Your task to perform on an android device: check data usage Image 0: 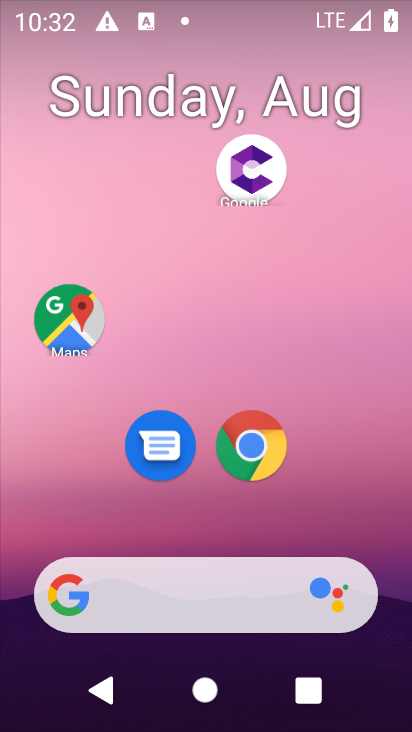
Step 0: drag from (210, 521) to (201, 47)
Your task to perform on an android device: check data usage Image 1: 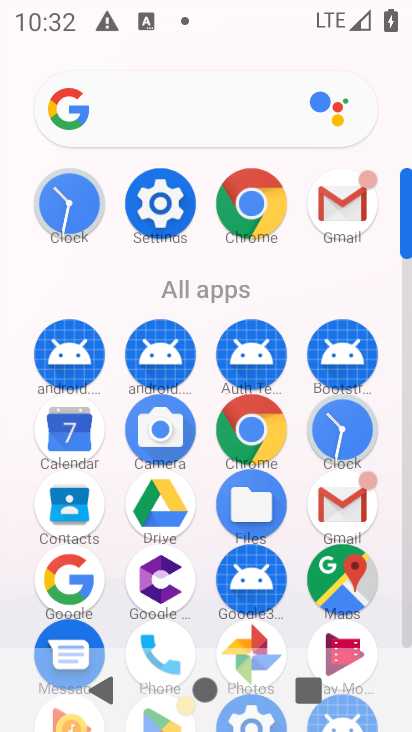
Step 1: click (157, 196)
Your task to perform on an android device: check data usage Image 2: 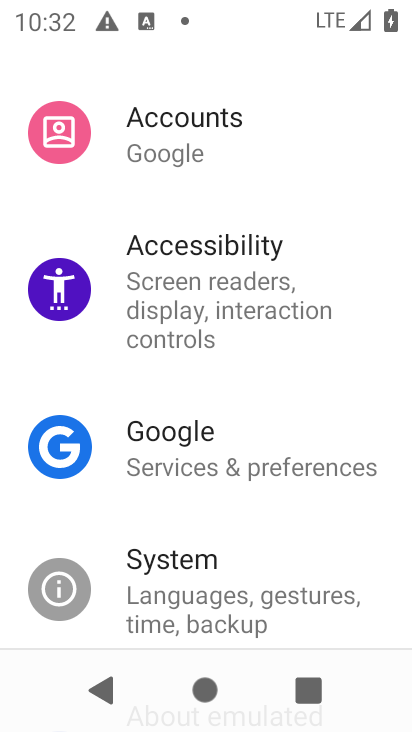
Step 2: drag from (188, 133) to (186, 700)
Your task to perform on an android device: check data usage Image 3: 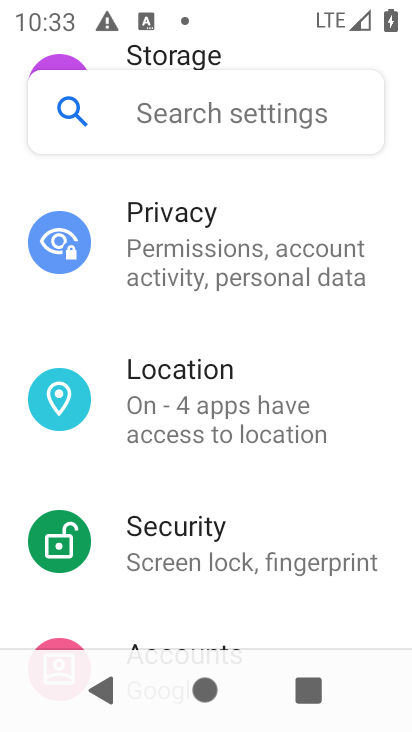
Step 3: drag from (185, 272) to (213, 663)
Your task to perform on an android device: check data usage Image 4: 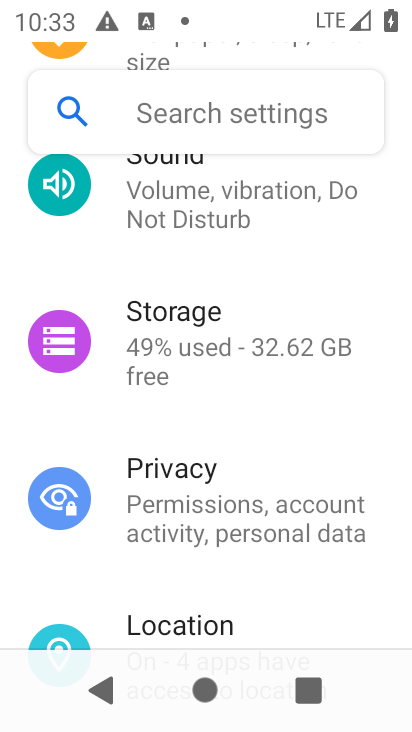
Step 4: drag from (186, 184) to (169, 624)
Your task to perform on an android device: check data usage Image 5: 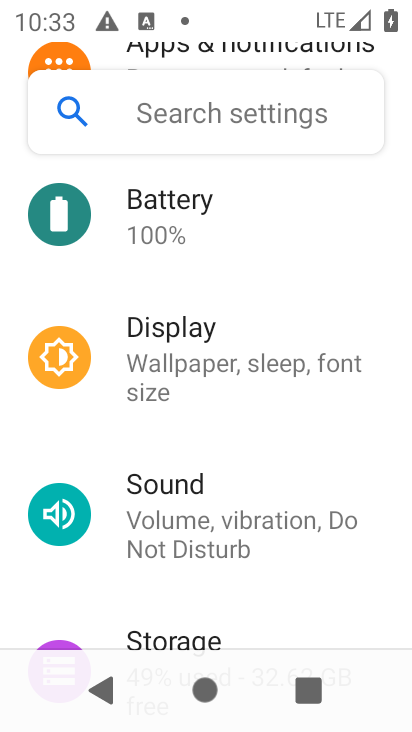
Step 5: drag from (184, 191) to (193, 653)
Your task to perform on an android device: check data usage Image 6: 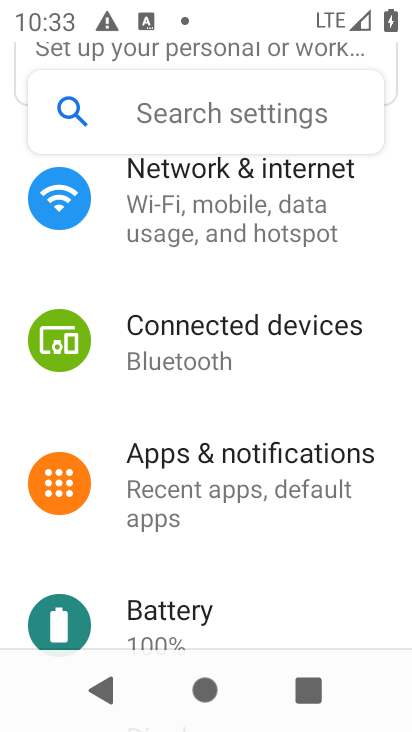
Step 6: click (182, 223)
Your task to perform on an android device: check data usage Image 7: 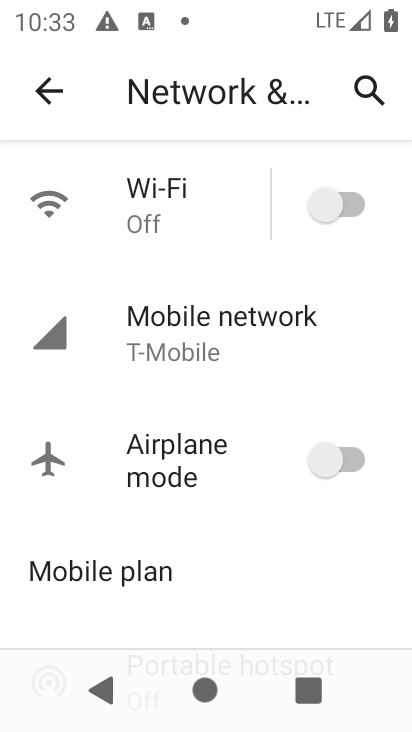
Step 7: click (213, 341)
Your task to perform on an android device: check data usage Image 8: 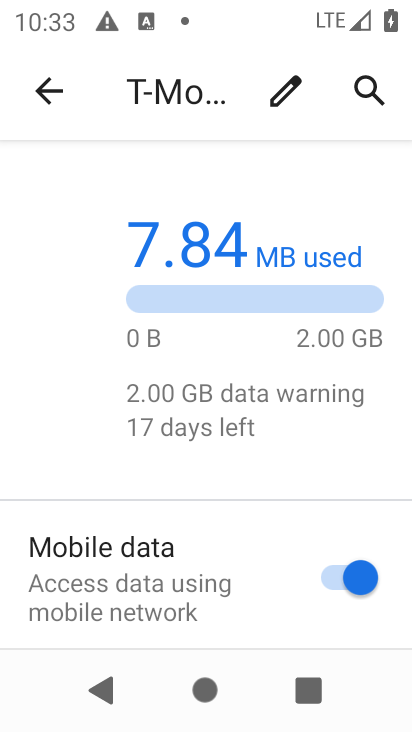
Step 8: drag from (236, 596) to (235, 205)
Your task to perform on an android device: check data usage Image 9: 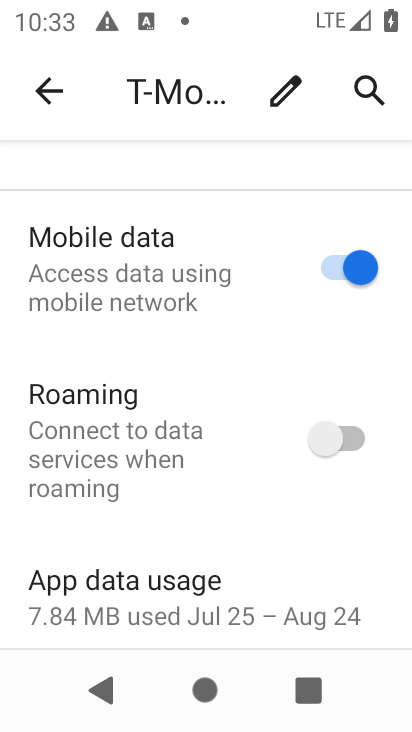
Step 9: click (236, 587)
Your task to perform on an android device: check data usage Image 10: 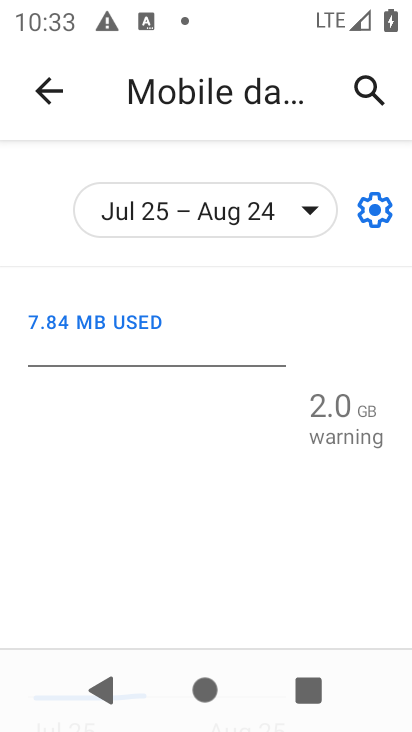
Step 10: task complete